Your task to perform on an android device: turn off wifi Image 0: 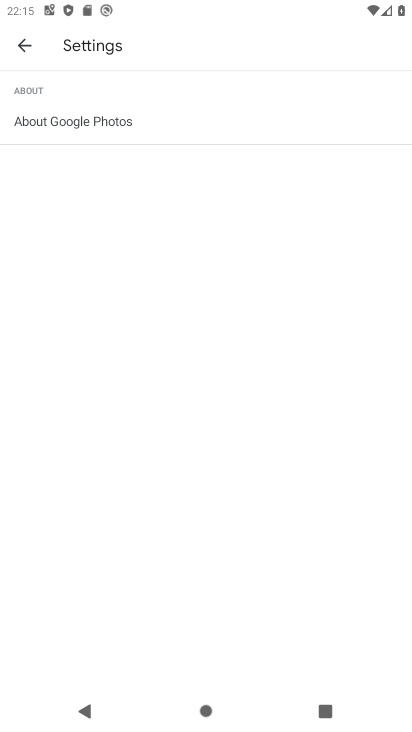
Step 0: press back button
Your task to perform on an android device: turn off wifi Image 1: 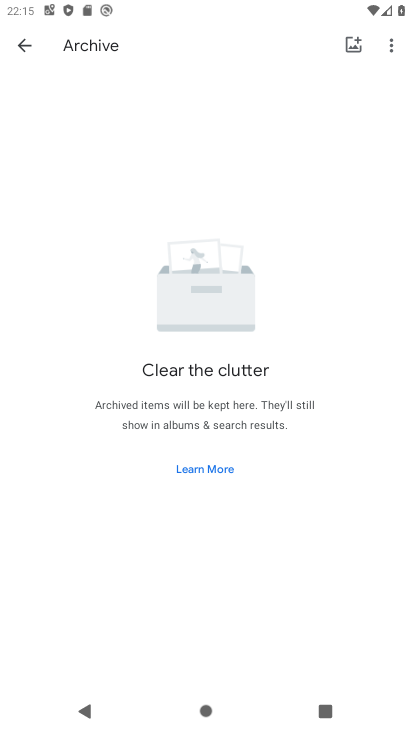
Step 1: drag from (68, 2) to (77, 619)
Your task to perform on an android device: turn off wifi Image 2: 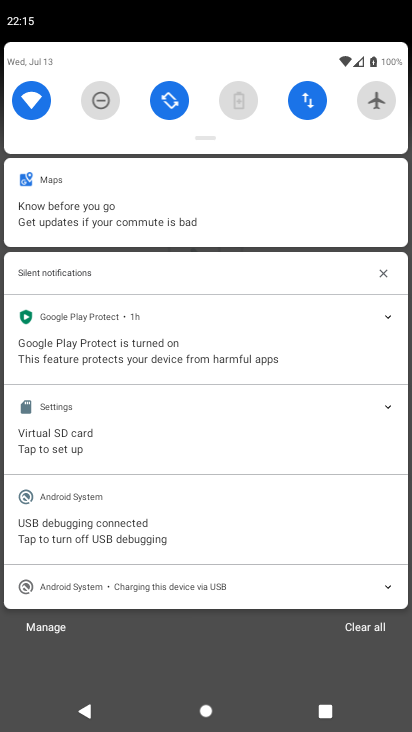
Step 2: click (28, 98)
Your task to perform on an android device: turn off wifi Image 3: 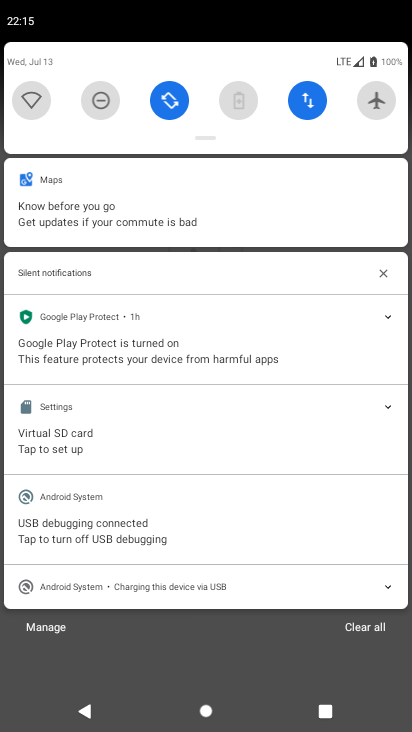
Step 3: task complete